Your task to perform on an android device: toggle notifications settings in the gmail app Image 0: 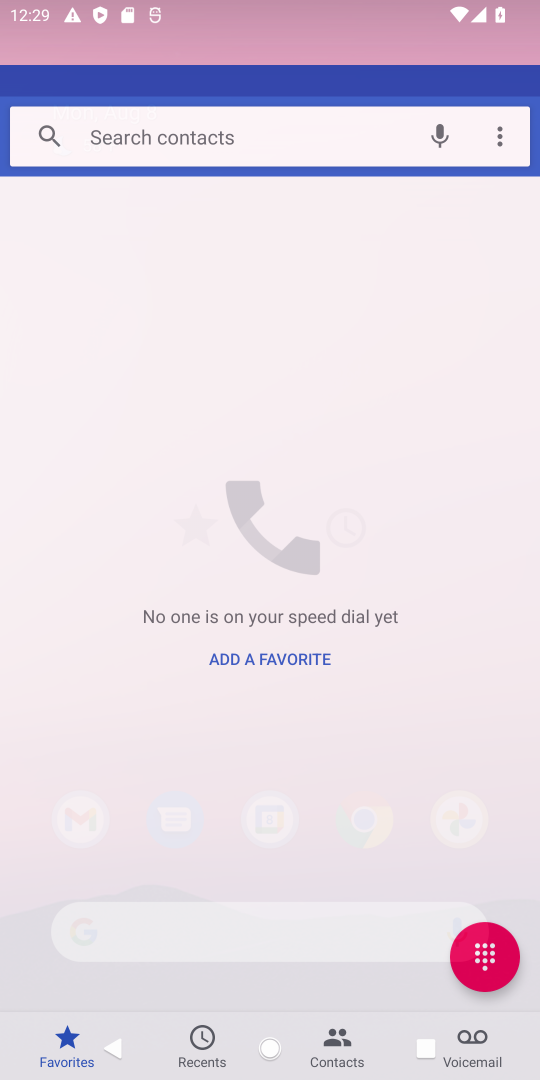
Step 0: press home button
Your task to perform on an android device: toggle notifications settings in the gmail app Image 1: 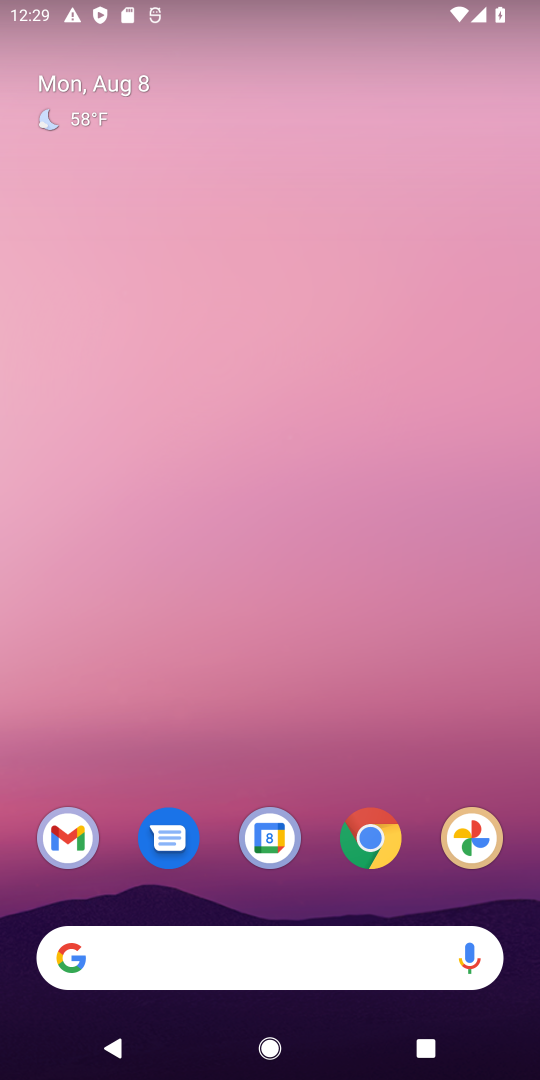
Step 1: click (62, 838)
Your task to perform on an android device: toggle notifications settings in the gmail app Image 2: 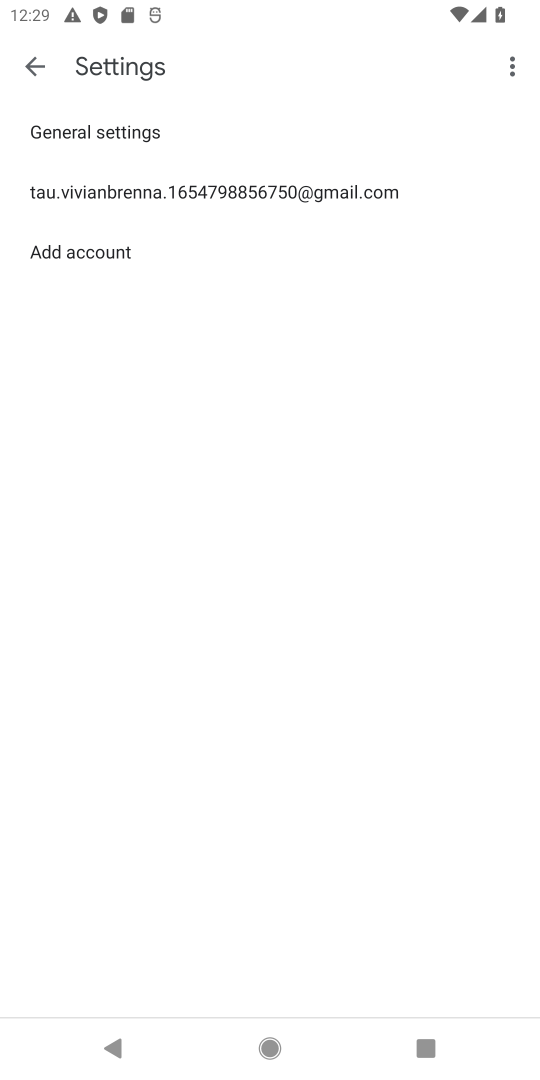
Step 2: click (187, 193)
Your task to perform on an android device: toggle notifications settings in the gmail app Image 3: 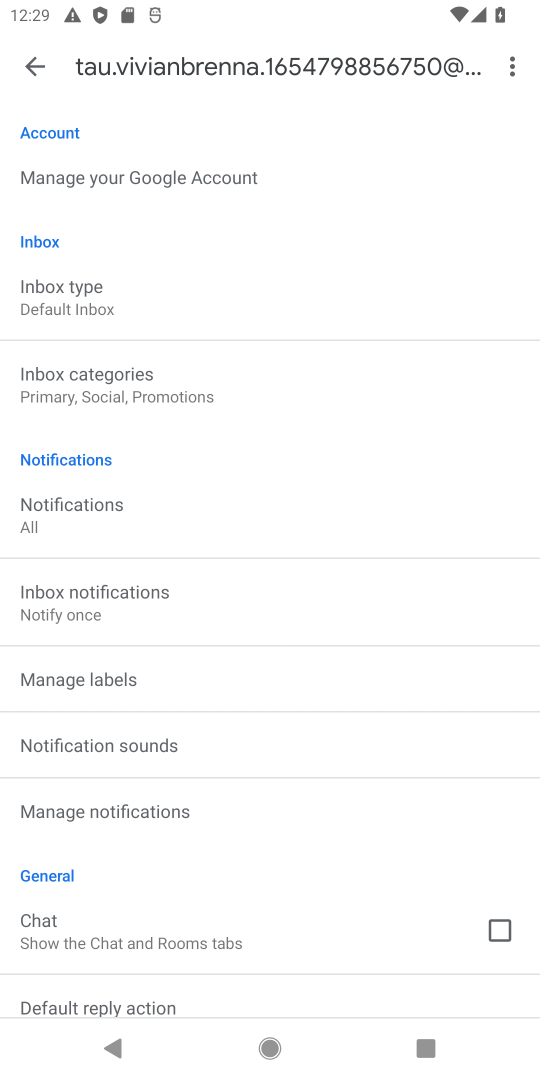
Step 3: click (84, 823)
Your task to perform on an android device: toggle notifications settings in the gmail app Image 4: 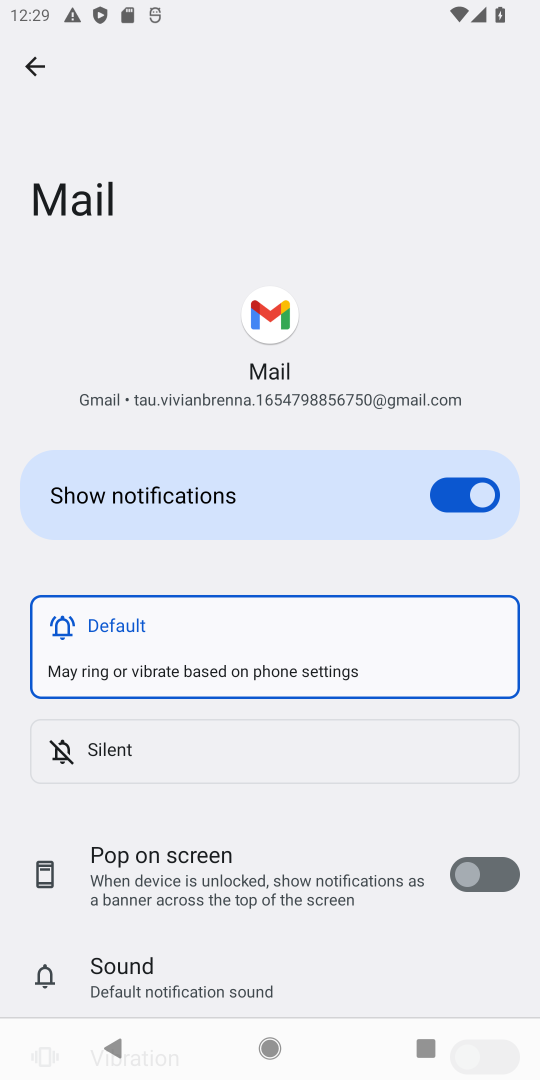
Step 4: click (494, 490)
Your task to perform on an android device: toggle notifications settings in the gmail app Image 5: 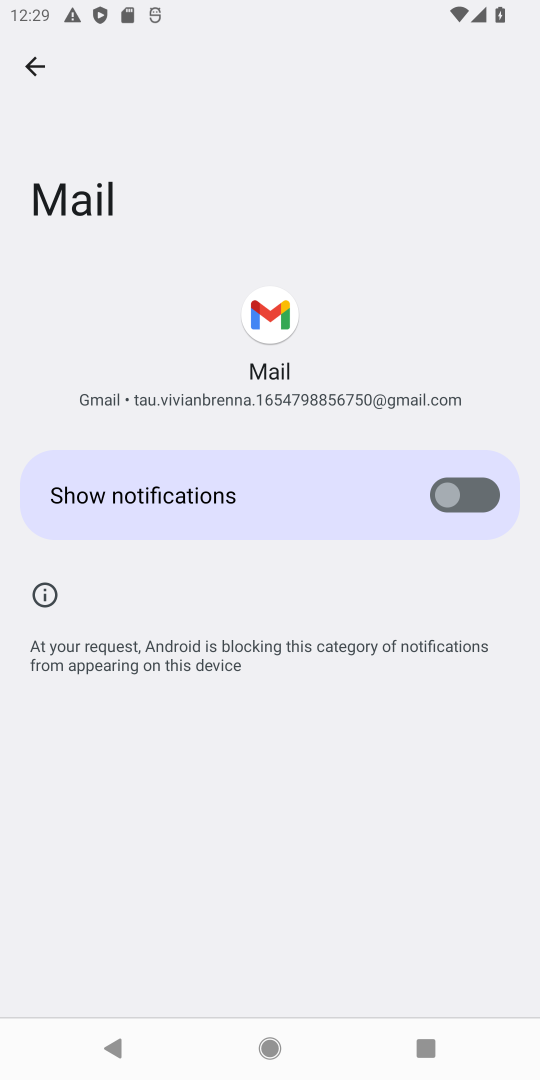
Step 5: task complete